Your task to perform on an android device: Go to Wikipedia Image 0: 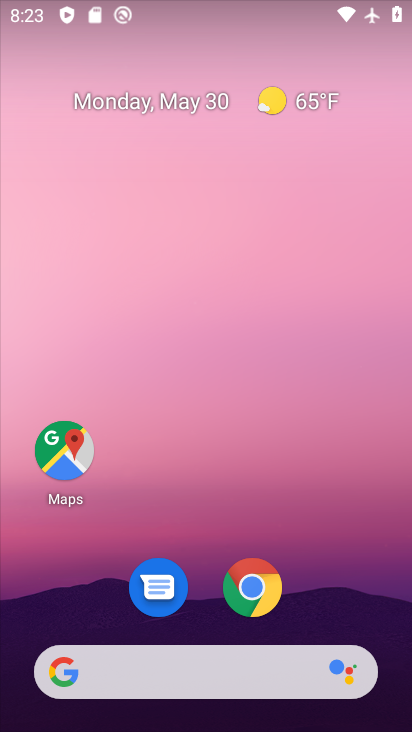
Step 0: press home button
Your task to perform on an android device: Go to Wikipedia Image 1: 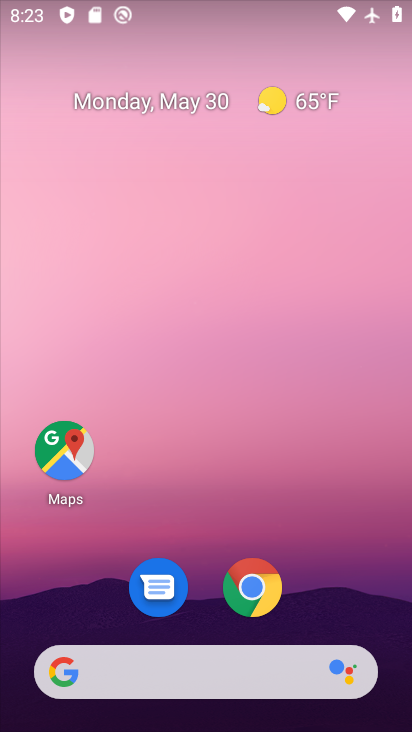
Step 1: click (258, 593)
Your task to perform on an android device: Go to Wikipedia Image 2: 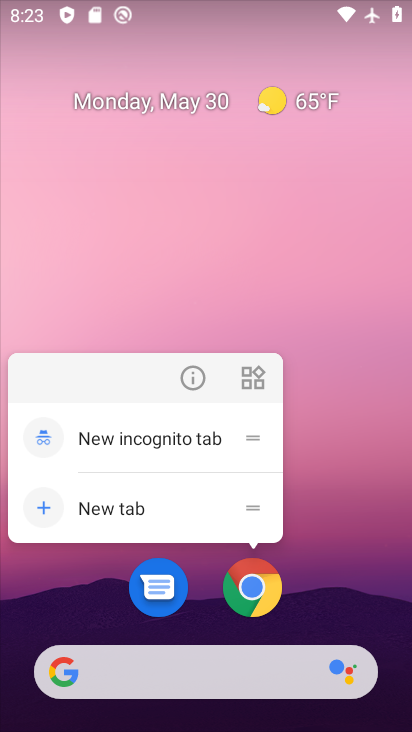
Step 2: click (253, 584)
Your task to perform on an android device: Go to Wikipedia Image 3: 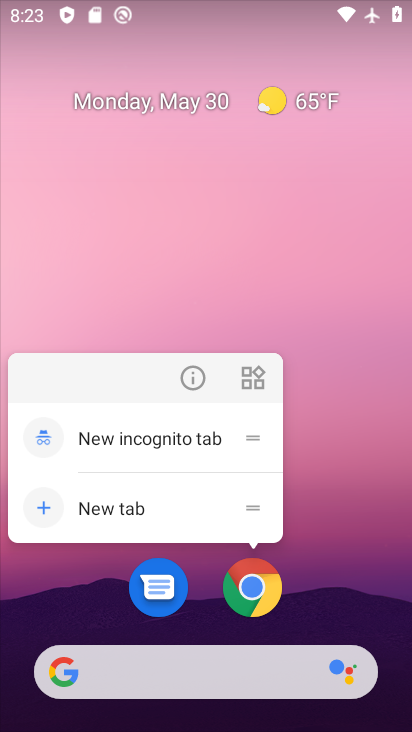
Step 3: click (248, 589)
Your task to perform on an android device: Go to Wikipedia Image 4: 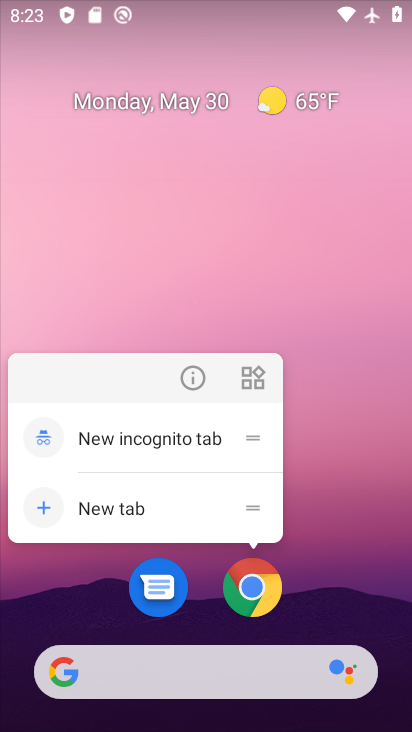
Step 4: click (248, 589)
Your task to perform on an android device: Go to Wikipedia Image 5: 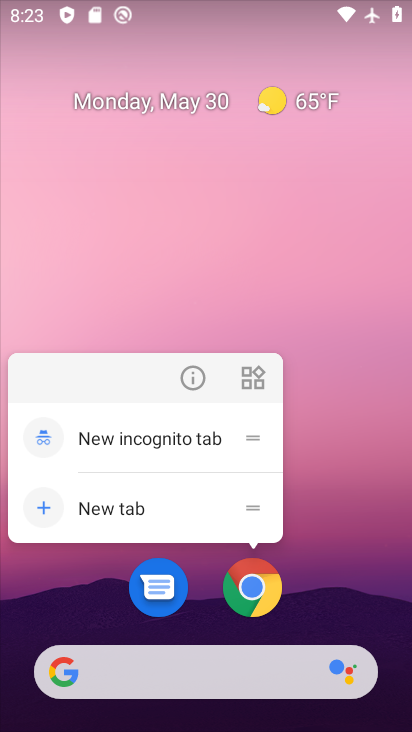
Step 5: click (248, 587)
Your task to perform on an android device: Go to Wikipedia Image 6: 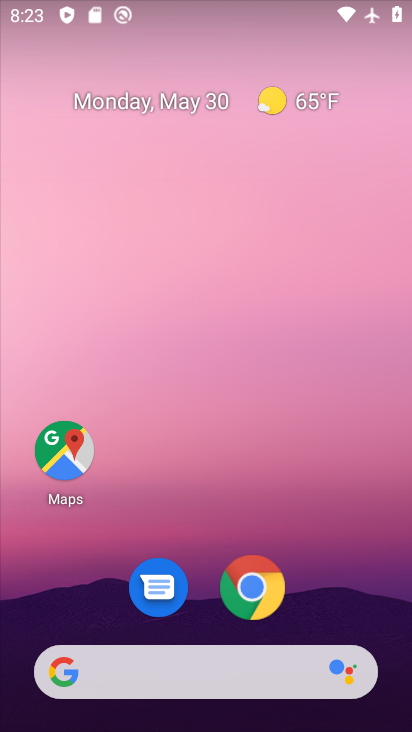
Step 6: click (248, 587)
Your task to perform on an android device: Go to Wikipedia Image 7: 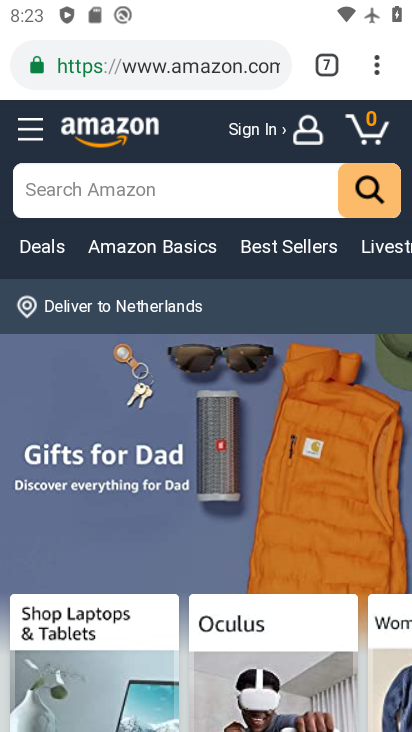
Step 7: drag from (372, 68) to (259, 129)
Your task to perform on an android device: Go to Wikipedia Image 8: 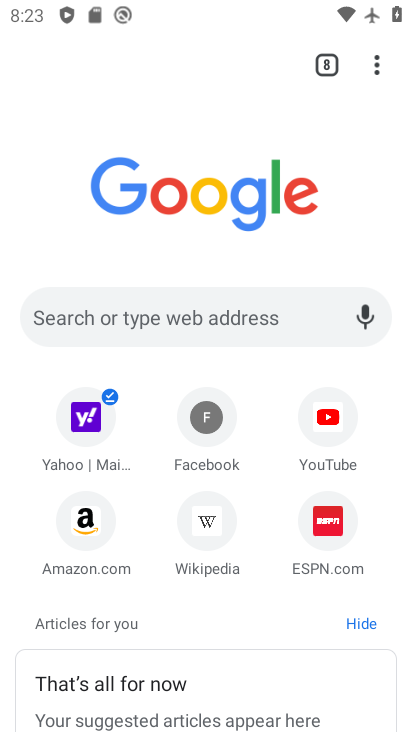
Step 8: click (206, 524)
Your task to perform on an android device: Go to Wikipedia Image 9: 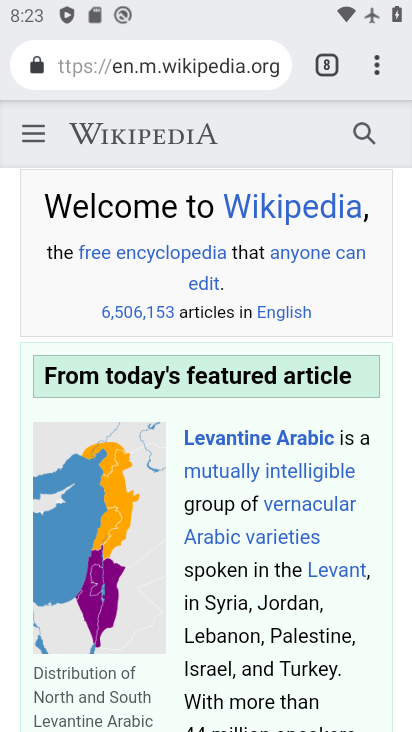
Step 9: task complete